Your task to perform on an android device: Look up the new steph curry shoes Image 0: 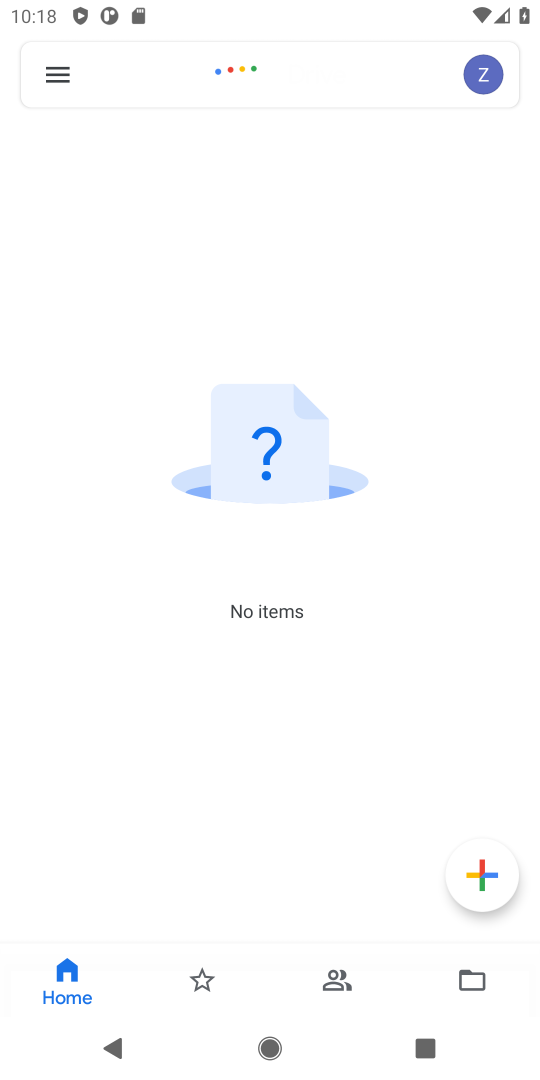
Step 0: press home button
Your task to perform on an android device: Look up the new steph curry shoes Image 1: 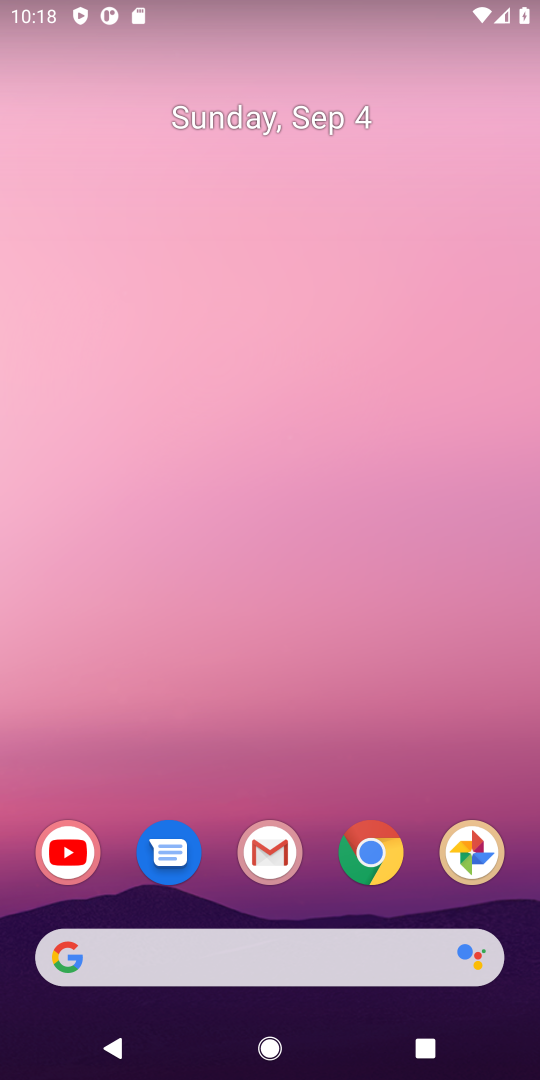
Step 1: drag from (385, 395) to (313, 26)
Your task to perform on an android device: Look up the new steph curry shoes Image 2: 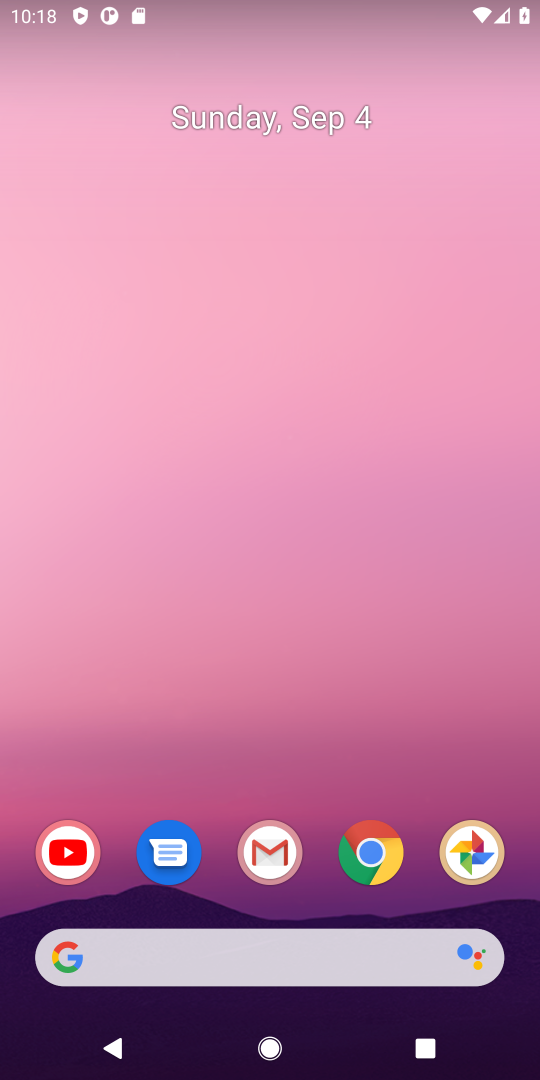
Step 2: drag from (447, 520) to (352, 2)
Your task to perform on an android device: Look up the new steph curry shoes Image 3: 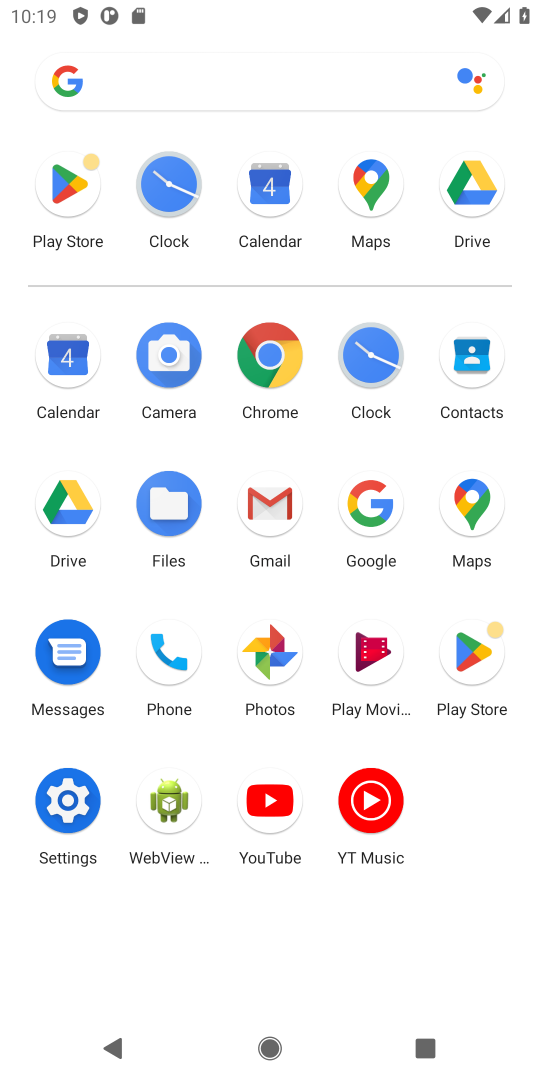
Step 3: click (347, 508)
Your task to perform on an android device: Look up the new steph curry shoes Image 4: 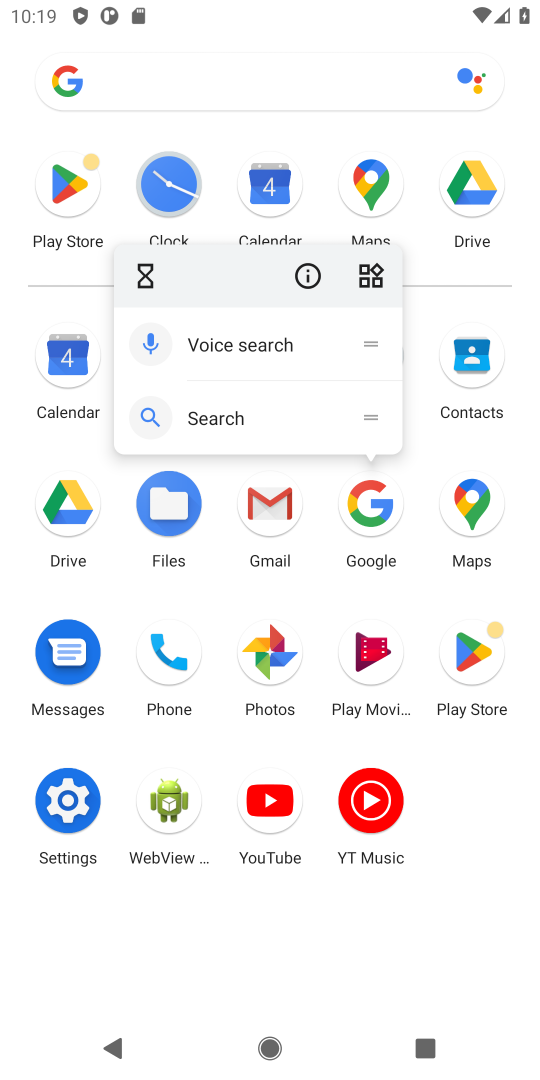
Step 4: click (394, 532)
Your task to perform on an android device: Look up the new steph curry shoes Image 5: 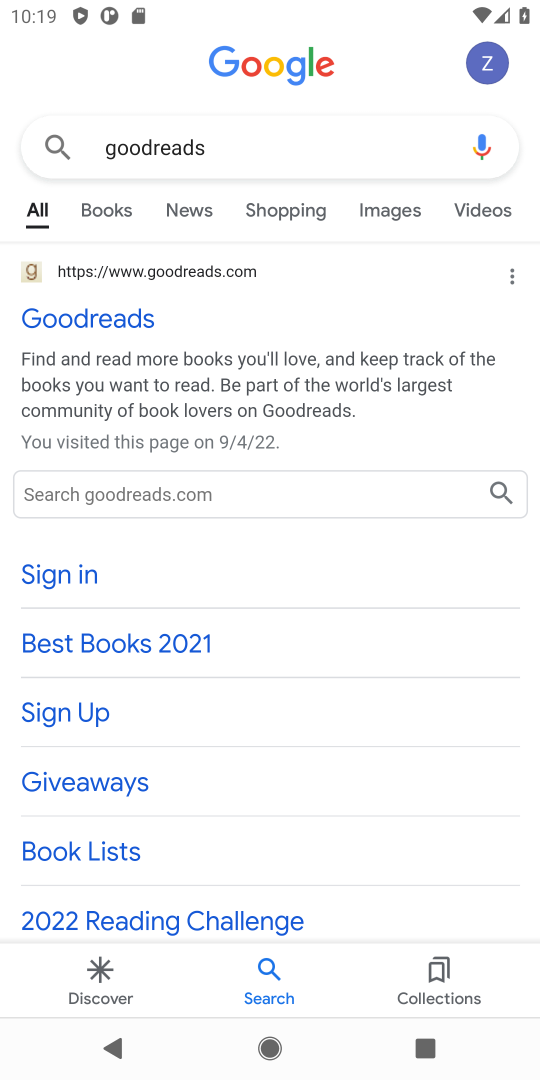
Step 5: press back button
Your task to perform on an android device: Look up the new steph curry shoes Image 6: 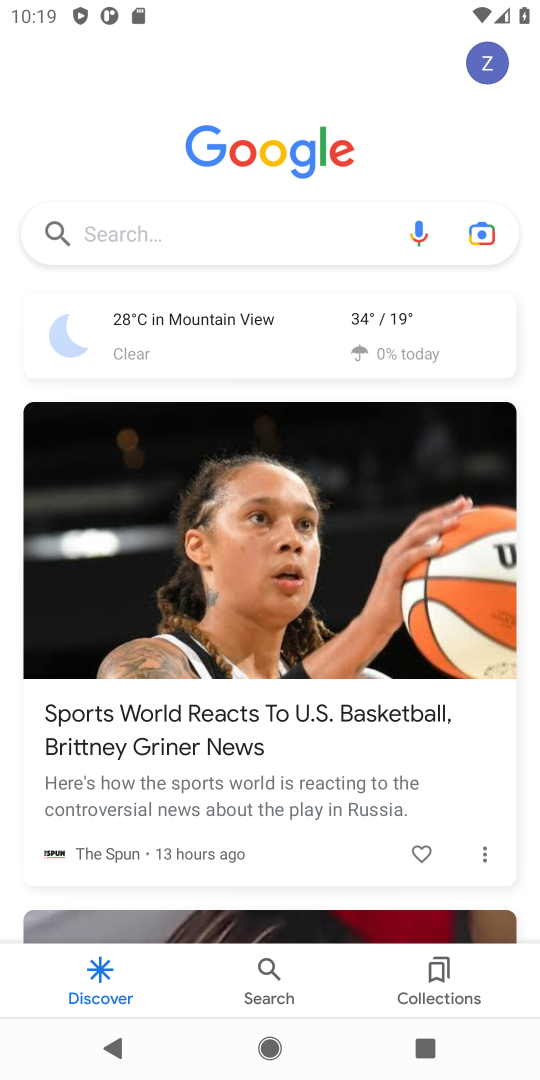
Step 6: click (145, 240)
Your task to perform on an android device: Look up the new steph curry shoes Image 7: 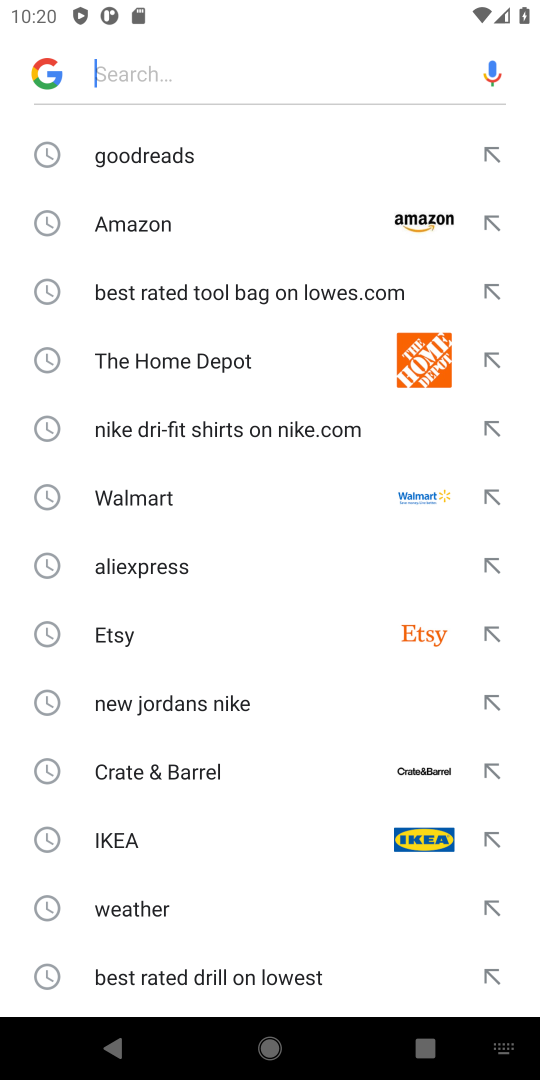
Step 7: type " new steph curry shoes"
Your task to perform on an android device: Look up the new steph curry shoes Image 8: 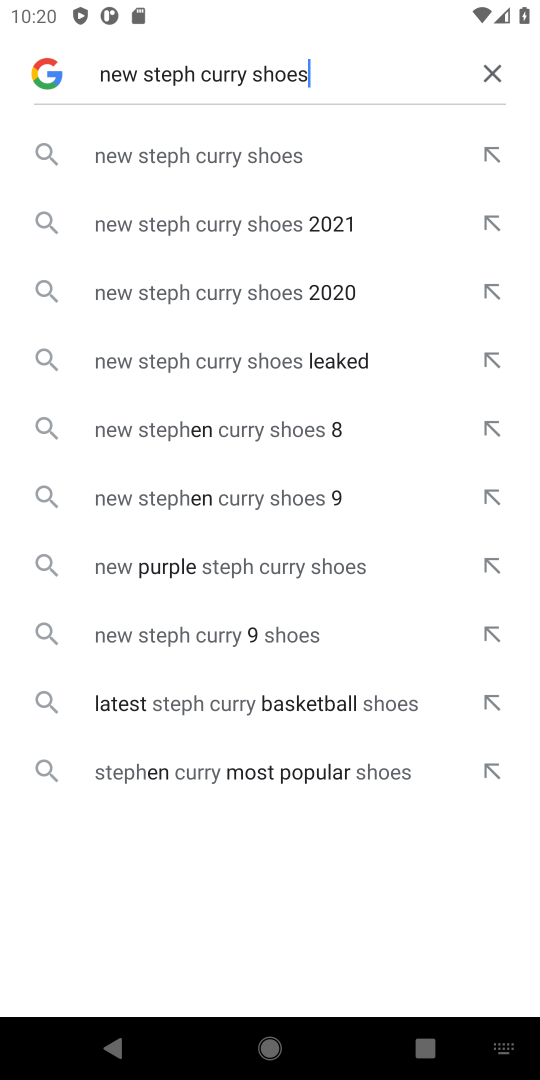
Step 8: click (177, 154)
Your task to perform on an android device: Look up the new steph curry shoes Image 9: 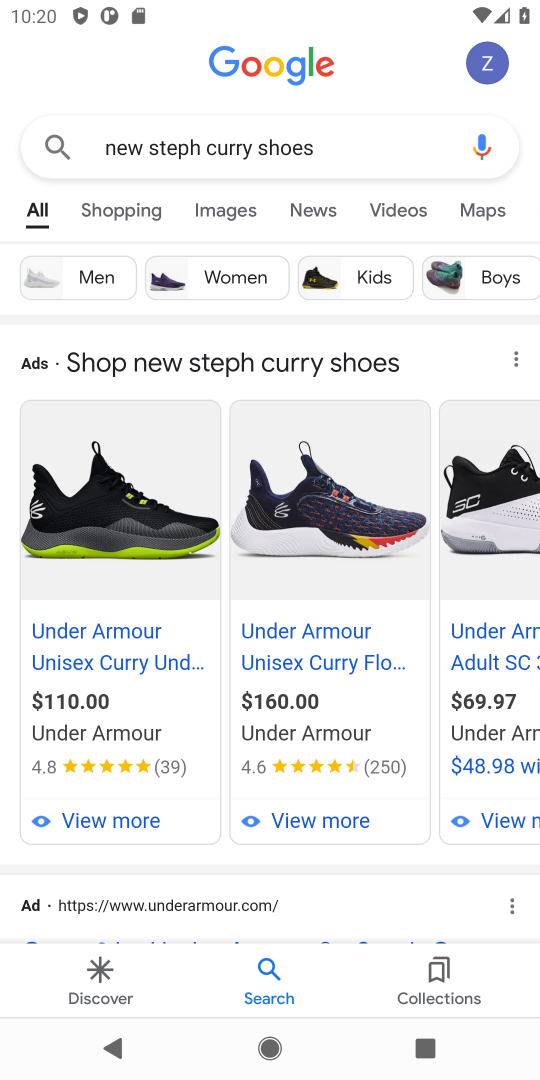
Step 9: task complete